Your task to perform on an android device: turn on javascript in the chrome app Image 0: 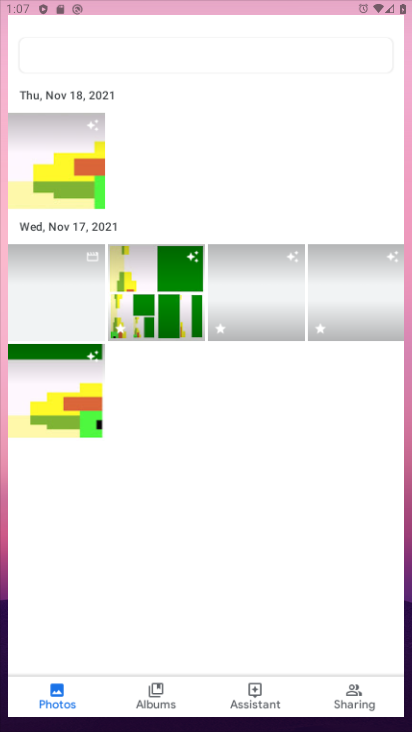
Step 0: drag from (325, 661) to (145, 151)
Your task to perform on an android device: turn on javascript in the chrome app Image 1: 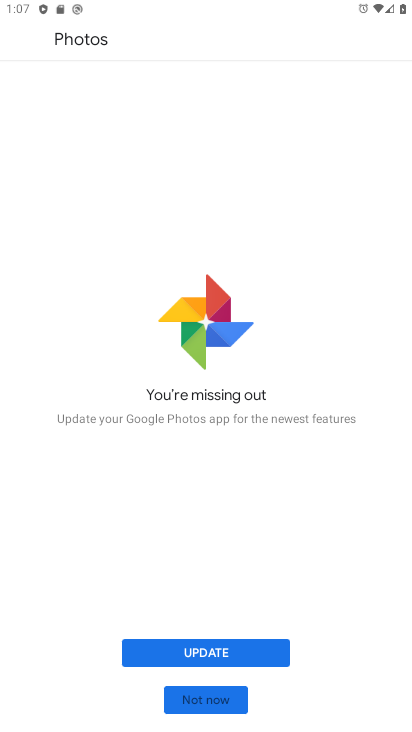
Step 1: press back button
Your task to perform on an android device: turn on javascript in the chrome app Image 2: 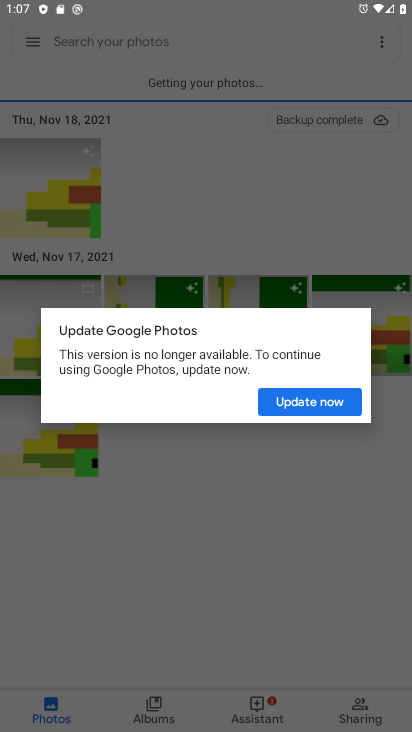
Step 2: press home button
Your task to perform on an android device: turn on javascript in the chrome app Image 3: 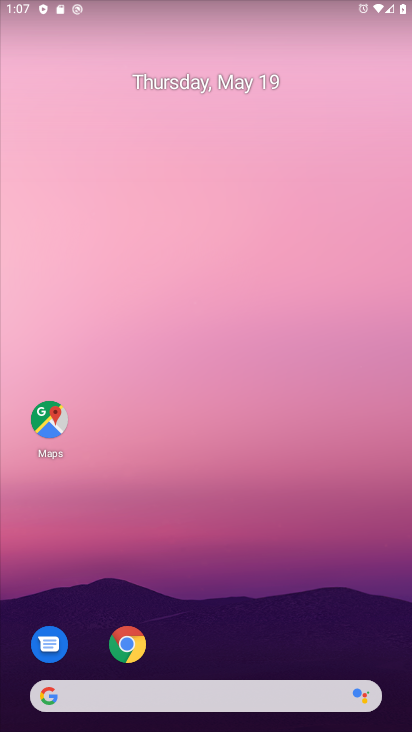
Step 3: drag from (340, 648) to (66, 56)
Your task to perform on an android device: turn on javascript in the chrome app Image 4: 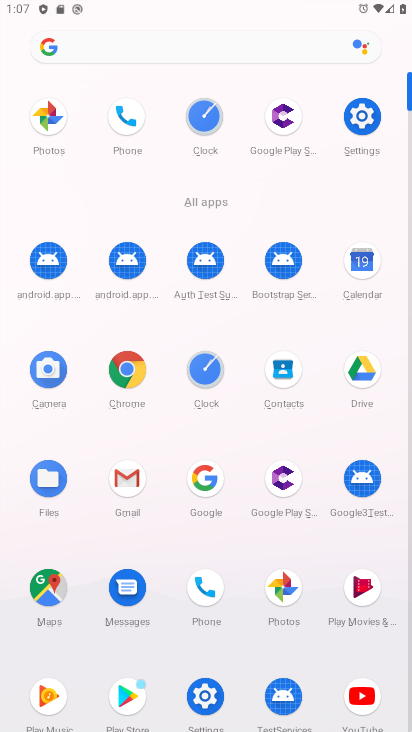
Step 4: click (122, 367)
Your task to perform on an android device: turn on javascript in the chrome app Image 5: 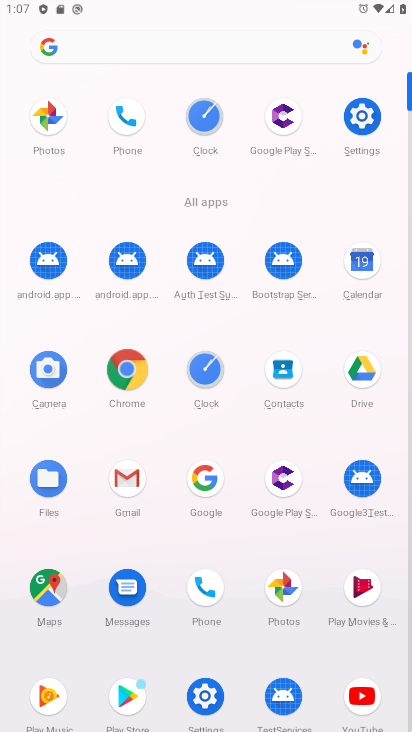
Step 5: click (122, 367)
Your task to perform on an android device: turn on javascript in the chrome app Image 6: 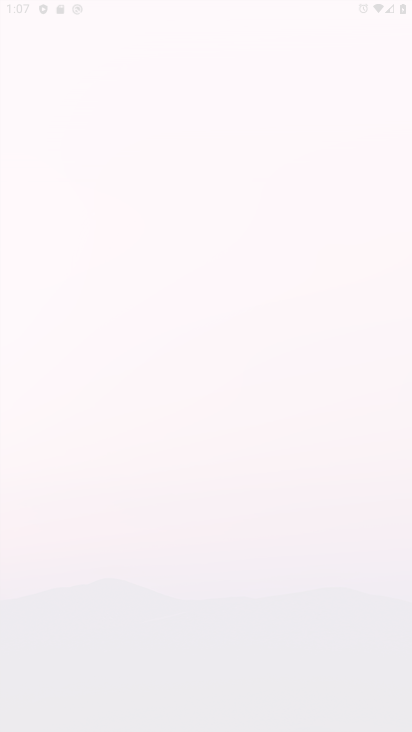
Step 6: click (119, 371)
Your task to perform on an android device: turn on javascript in the chrome app Image 7: 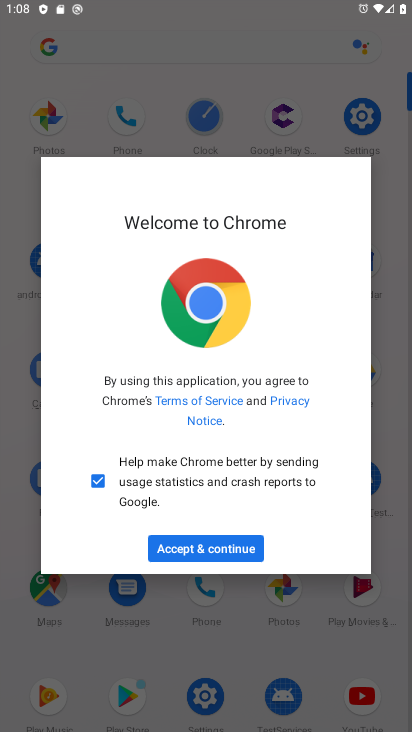
Step 7: click (203, 546)
Your task to perform on an android device: turn on javascript in the chrome app Image 8: 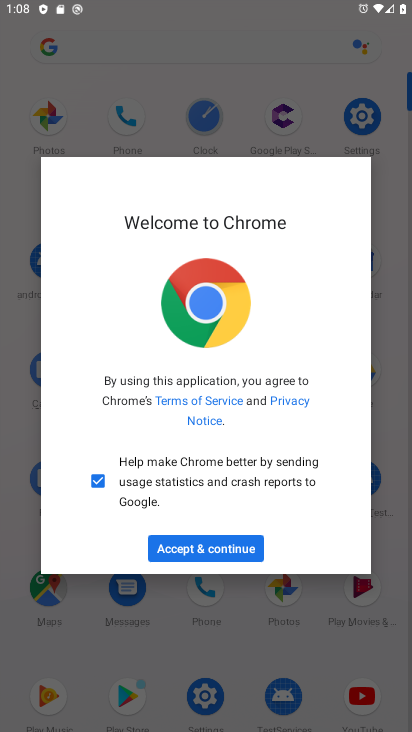
Step 8: click (203, 546)
Your task to perform on an android device: turn on javascript in the chrome app Image 9: 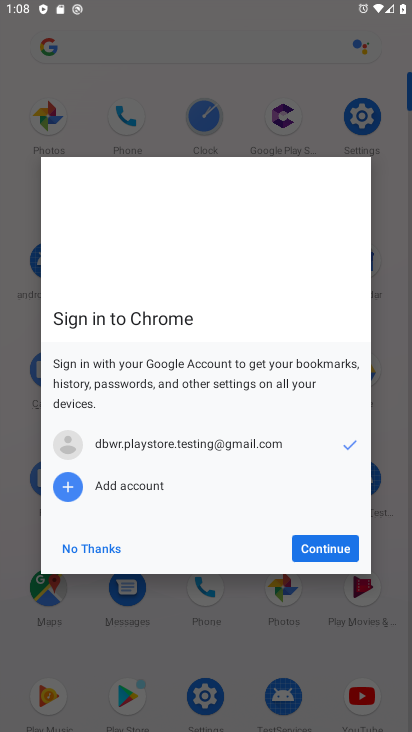
Step 9: click (204, 547)
Your task to perform on an android device: turn on javascript in the chrome app Image 10: 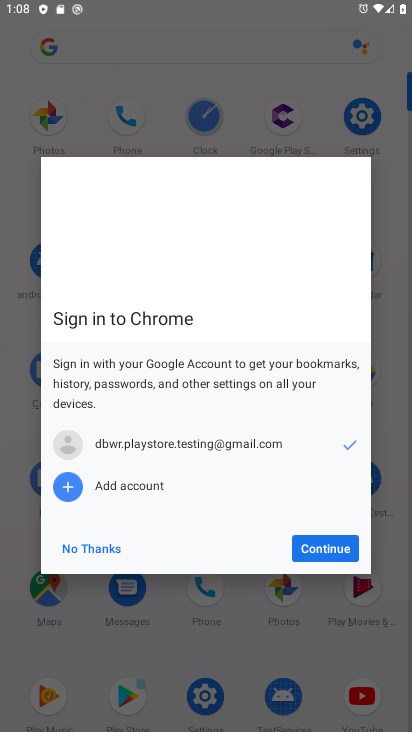
Step 10: click (321, 548)
Your task to perform on an android device: turn on javascript in the chrome app Image 11: 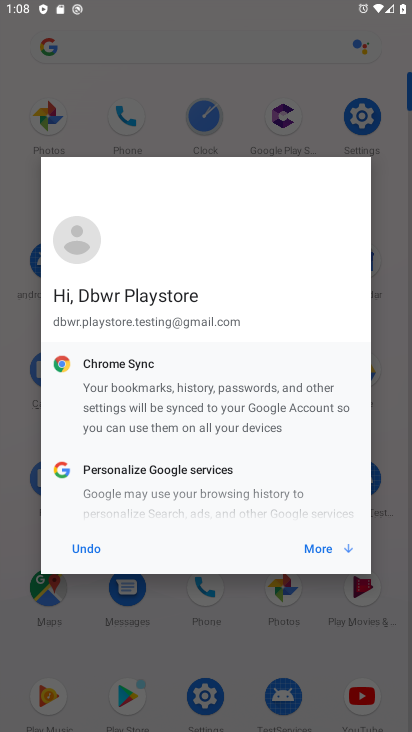
Step 11: click (322, 549)
Your task to perform on an android device: turn on javascript in the chrome app Image 12: 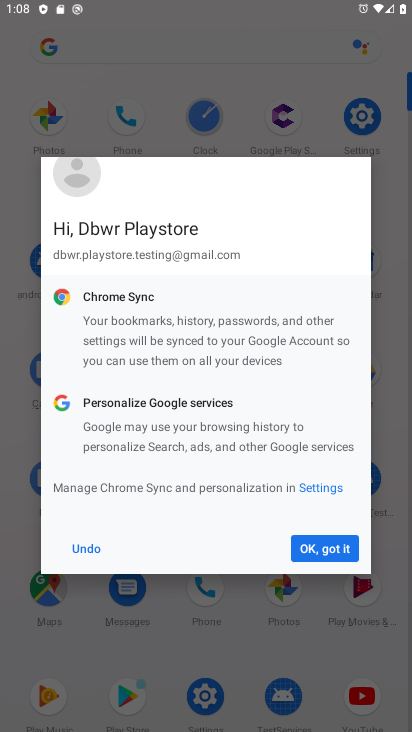
Step 12: click (312, 544)
Your task to perform on an android device: turn on javascript in the chrome app Image 13: 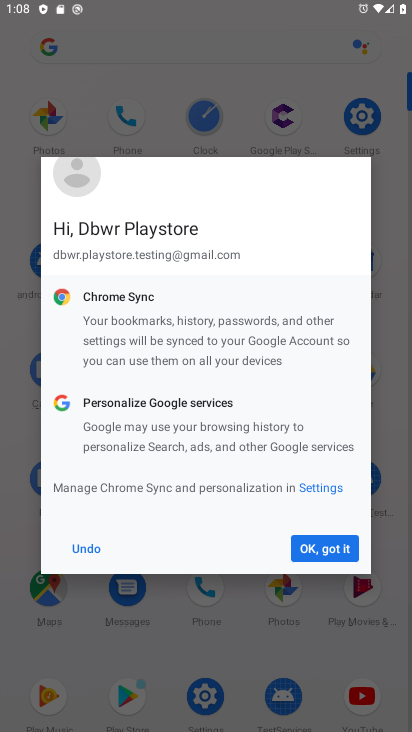
Step 13: click (312, 544)
Your task to perform on an android device: turn on javascript in the chrome app Image 14: 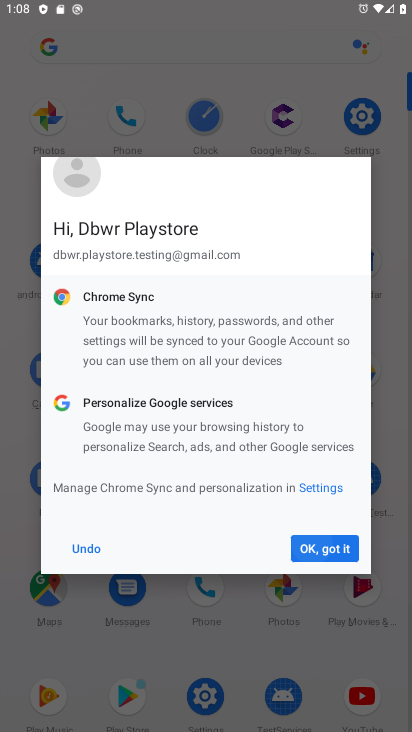
Step 14: click (312, 544)
Your task to perform on an android device: turn on javascript in the chrome app Image 15: 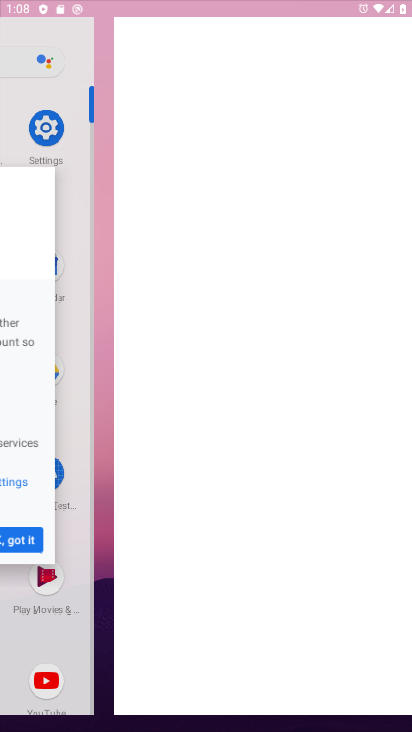
Step 15: click (312, 544)
Your task to perform on an android device: turn on javascript in the chrome app Image 16: 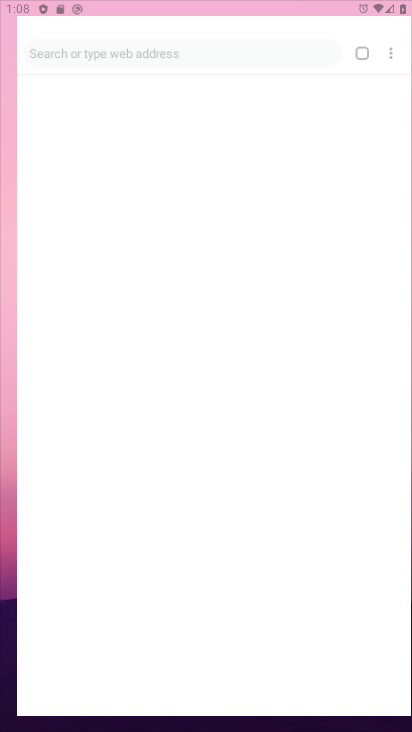
Step 16: click (321, 543)
Your task to perform on an android device: turn on javascript in the chrome app Image 17: 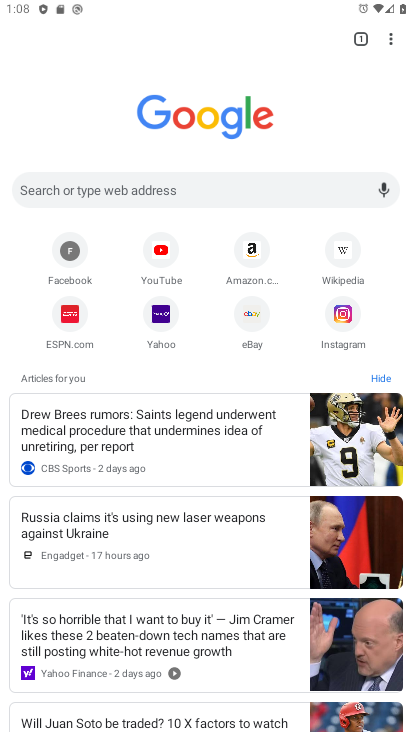
Step 17: drag from (389, 42) to (256, 334)
Your task to perform on an android device: turn on javascript in the chrome app Image 18: 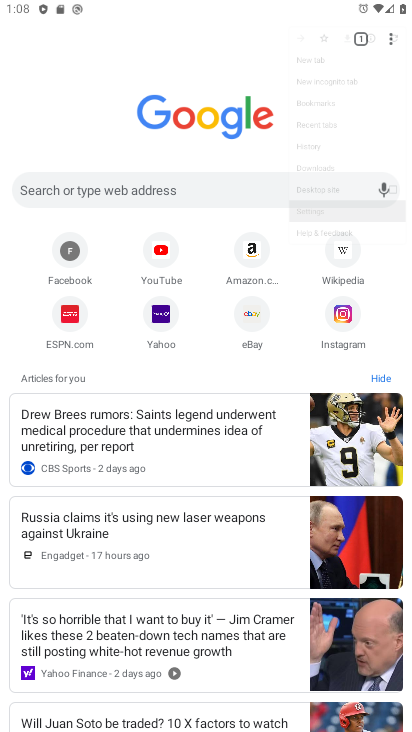
Step 18: click (259, 335)
Your task to perform on an android device: turn on javascript in the chrome app Image 19: 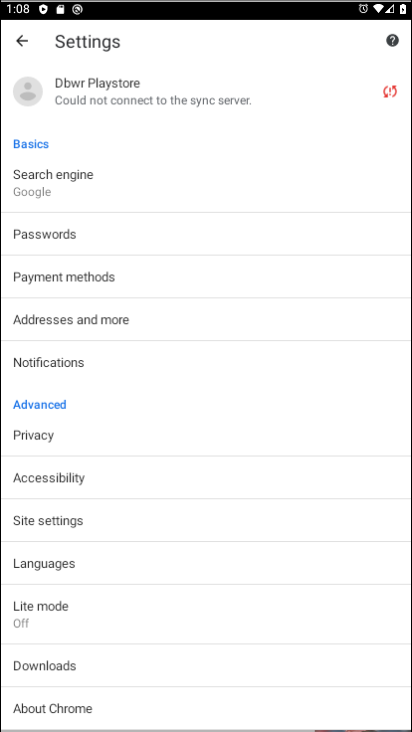
Step 19: click (260, 335)
Your task to perform on an android device: turn on javascript in the chrome app Image 20: 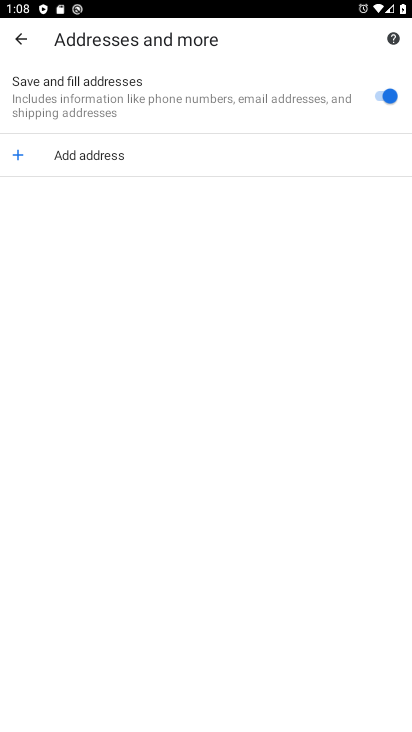
Step 20: click (11, 30)
Your task to perform on an android device: turn on javascript in the chrome app Image 21: 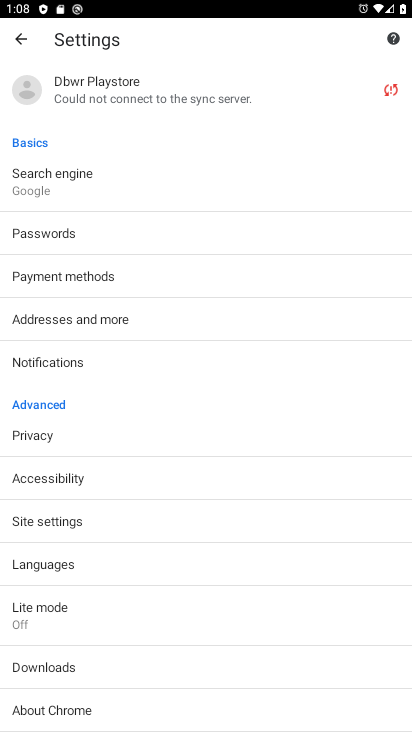
Step 21: click (35, 520)
Your task to perform on an android device: turn on javascript in the chrome app Image 22: 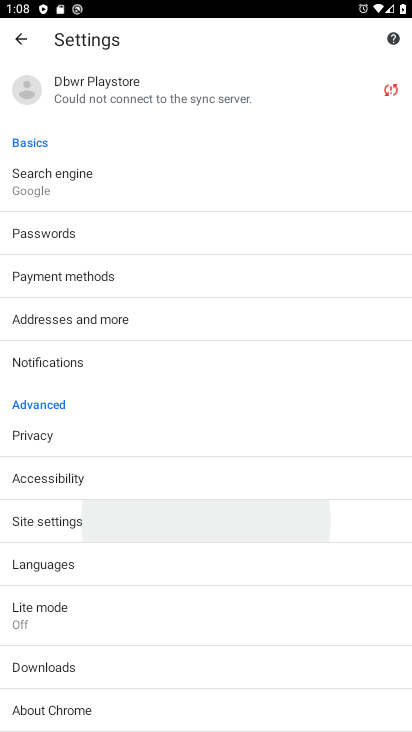
Step 22: click (42, 520)
Your task to perform on an android device: turn on javascript in the chrome app Image 23: 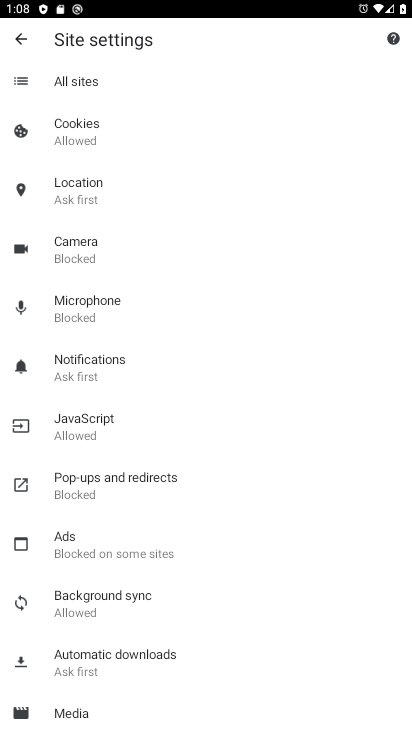
Step 23: click (86, 426)
Your task to perform on an android device: turn on javascript in the chrome app Image 24: 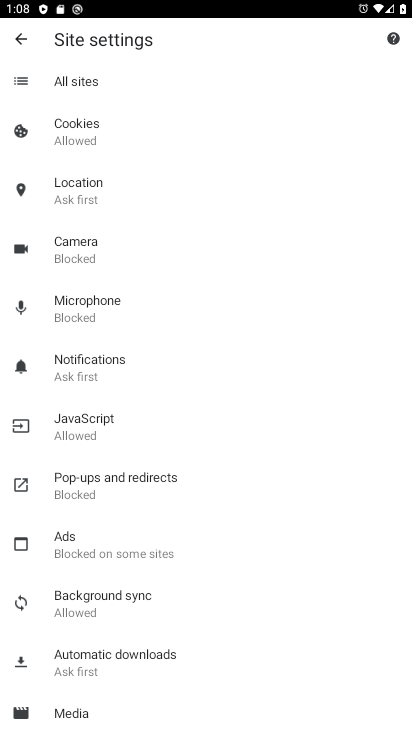
Step 24: click (86, 423)
Your task to perform on an android device: turn on javascript in the chrome app Image 25: 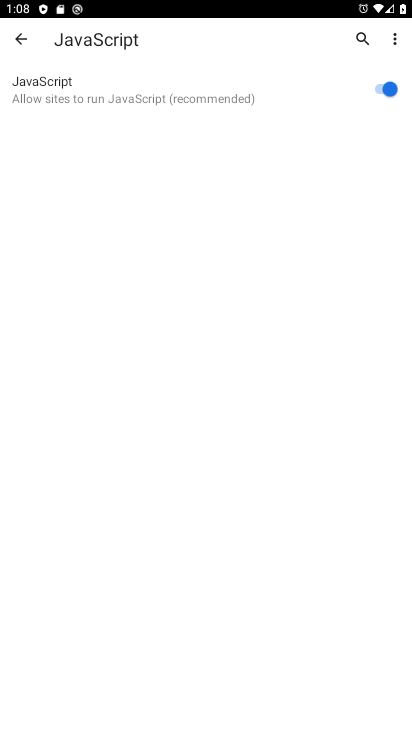
Step 25: task complete